Your task to perform on an android device: turn off javascript in the chrome app Image 0: 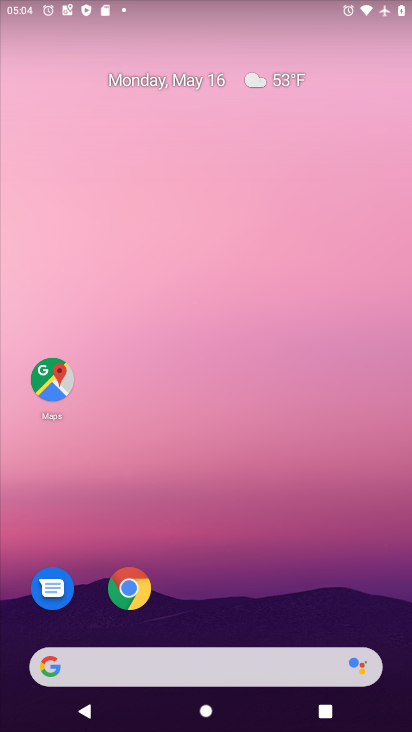
Step 0: drag from (186, 457) to (175, 8)
Your task to perform on an android device: turn off javascript in the chrome app Image 1: 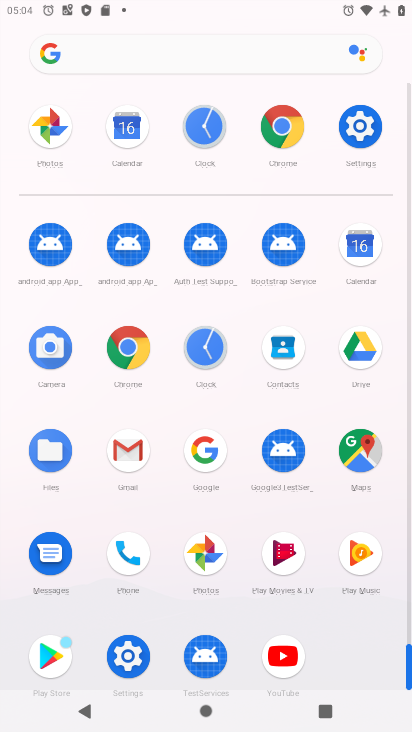
Step 1: drag from (13, 482) to (8, 165)
Your task to perform on an android device: turn off javascript in the chrome app Image 2: 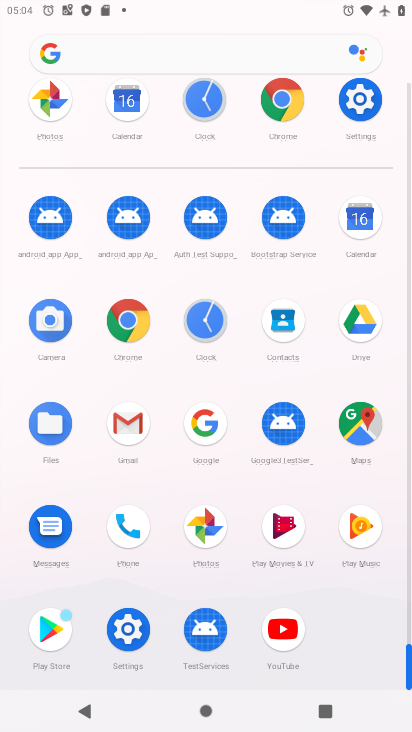
Step 2: click (129, 319)
Your task to perform on an android device: turn off javascript in the chrome app Image 3: 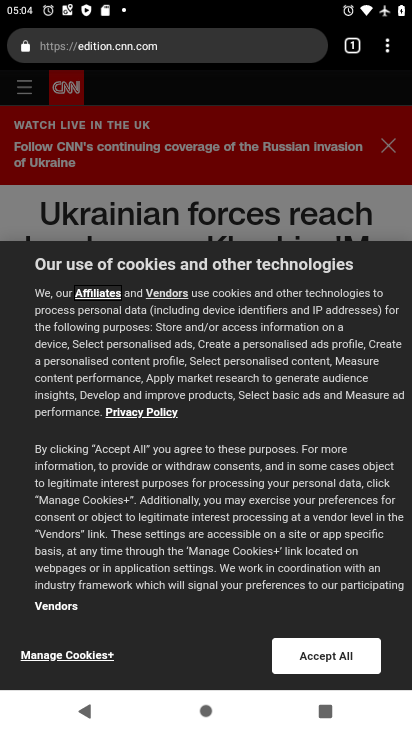
Step 3: click (343, 643)
Your task to perform on an android device: turn off javascript in the chrome app Image 4: 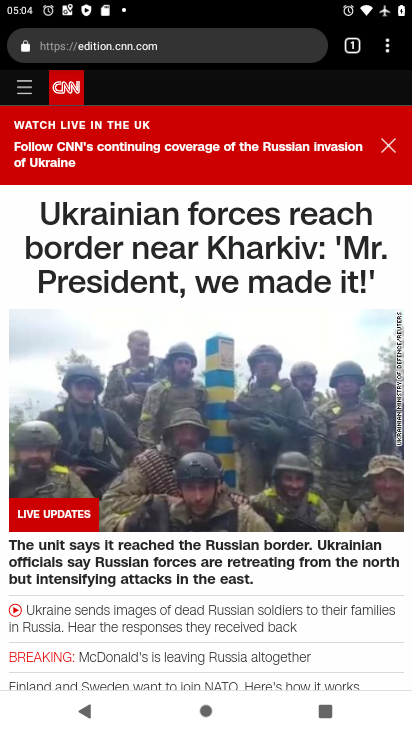
Step 4: drag from (390, 41) to (227, 501)
Your task to perform on an android device: turn off javascript in the chrome app Image 5: 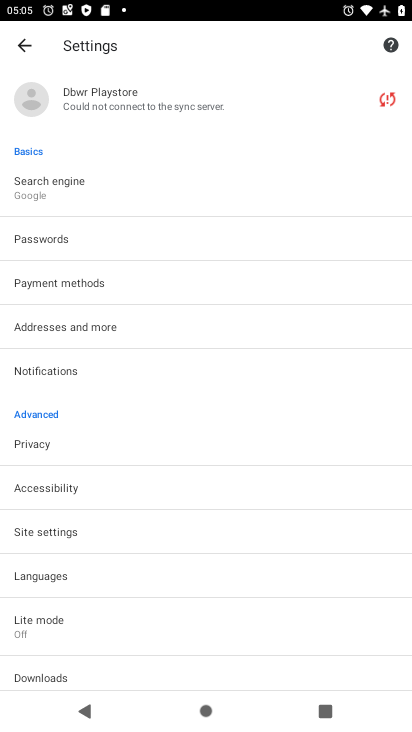
Step 5: drag from (141, 493) to (183, 159)
Your task to perform on an android device: turn off javascript in the chrome app Image 6: 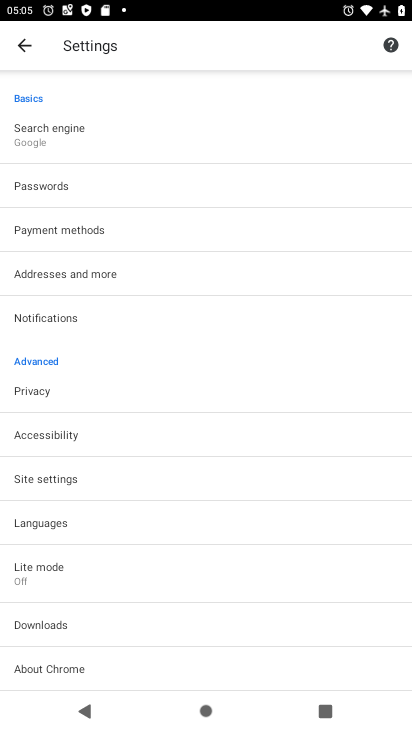
Step 6: click (73, 485)
Your task to perform on an android device: turn off javascript in the chrome app Image 7: 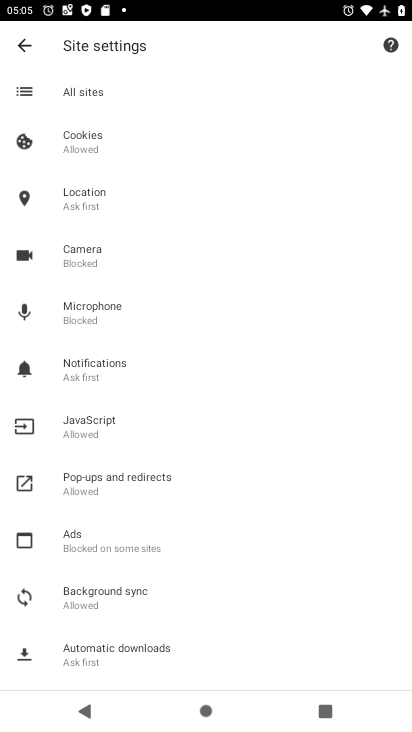
Step 7: click (121, 420)
Your task to perform on an android device: turn off javascript in the chrome app Image 8: 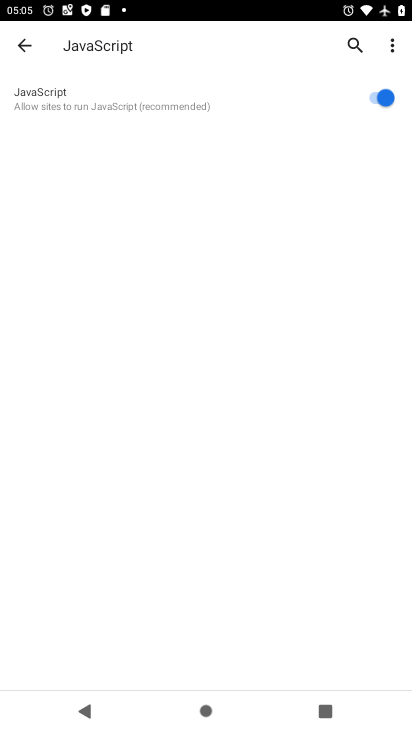
Step 8: click (375, 92)
Your task to perform on an android device: turn off javascript in the chrome app Image 9: 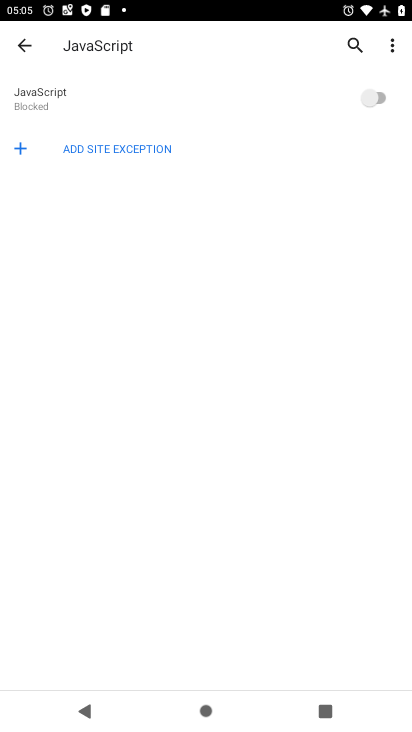
Step 9: task complete